Your task to perform on an android device: install app "Yahoo Mail" Image 0: 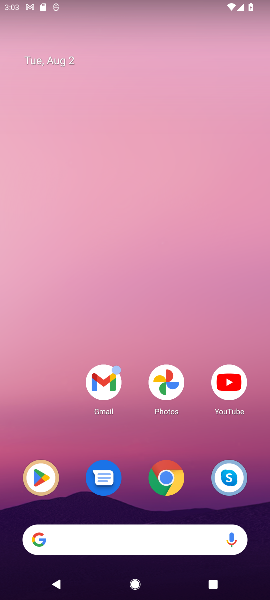
Step 0: drag from (138, 576) to (129, 50)
Your task to perform on an android device: install app "Yahoo Mail" Image 1: 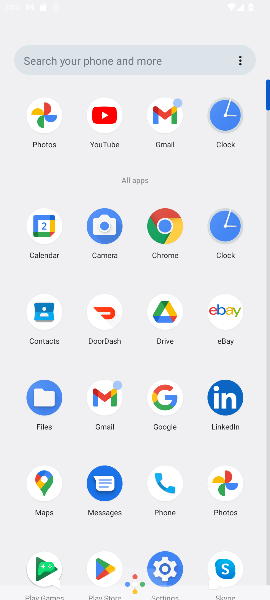
Step 1: drag from (147, 352) to (110, 30)
Your task to perform on an android device: install app "Yahoo Mail" Image 2: 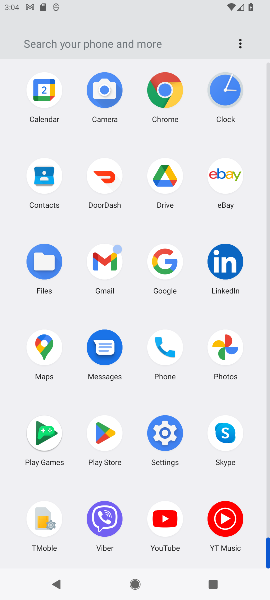
Step 2: click (101, 428)
Your task to perform on an android device: install app "Yahoo Mail" Image 3: 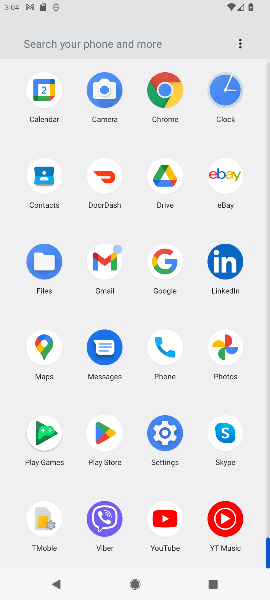
Step 3: click (102, 427)
Your task to perform on an android device: install app "Yahoo Mail" Image 4: 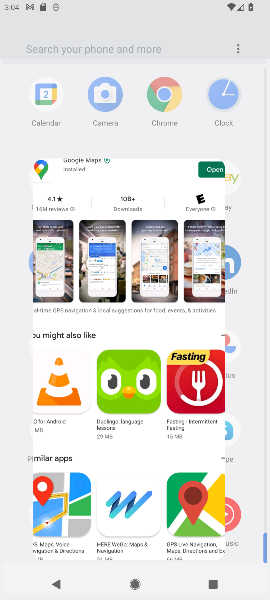
Step 4: click (105, 427)
Your task to perform on an android device: install app "Yahoo Mail" Image 5: 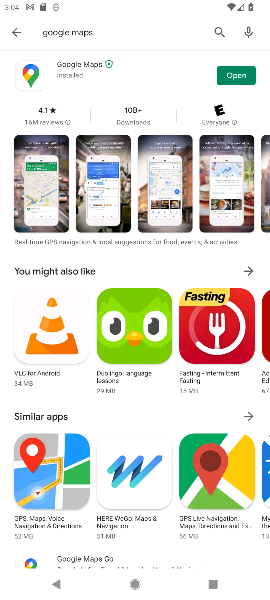
Step 5: click (19, 27)
Your task to perform on an android device: install app "Yahoo Mail" Image 6: 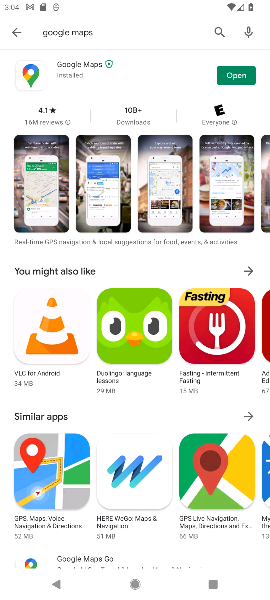
Step 6: click (19, 27)
Your task to perform on an android device: install app "Yahoo Mail" Image 7: 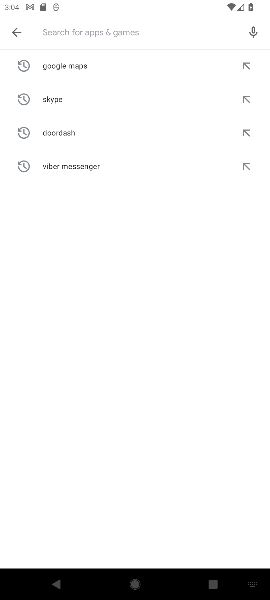
Step 7: click (78, 32)
Your task to perform on an android device: install app "Yahoo Mail" Image 8: 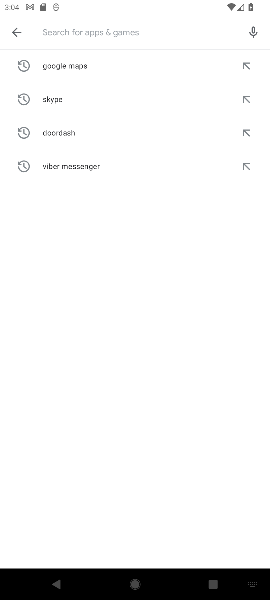
Step 8: click (79, 33)
Your task to perform on an android device: install app "Yahoo Mail" Image 9: 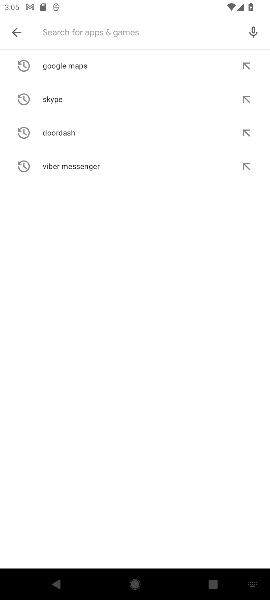
Step 9: type "yahoo mail"
Your task to perform on an android device: install app "Yahoo Mail" Image 10: 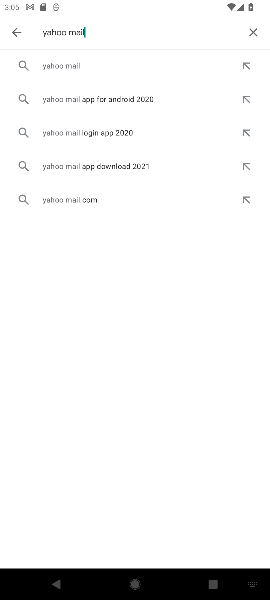
Step 10: click (66, 70)
Your task to perform on an android device: install app "Yahoo Mail" Image 11: 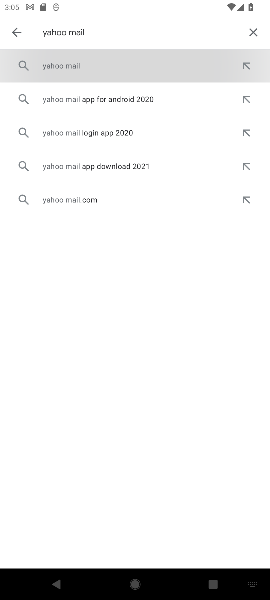
Step 11: click (71, 64)
Your task to perform on an android device: install app "Yahoo Mail" Image 12: 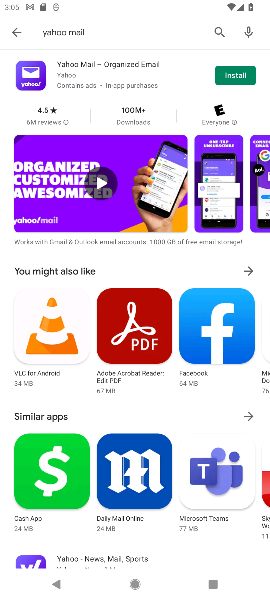
Step 12: click (248, 79)
Your task to perform on an android device: install app "Yahoo Mail" Image 13: 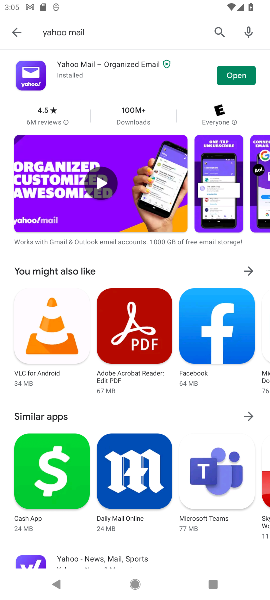
Step 13: click (243, 76)
Your task to perform on an android device: install app "Yahoo Mail" Image 14: 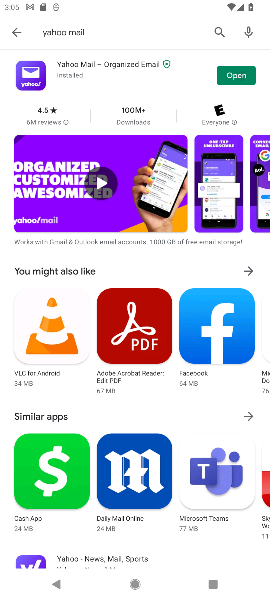
Step 14: click (243, 76)
Your task to perform on an android device: install app "Yahoo Mail" Image 15: 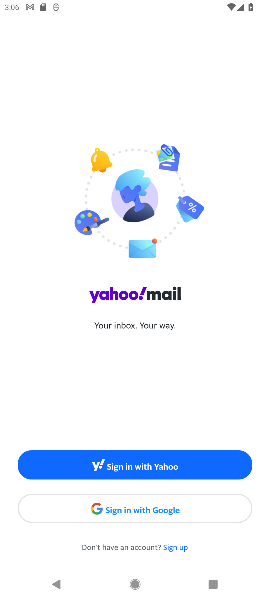
Step 15: task complete